Your task to perform on an android device: turn on improve location accuracy Image 0: 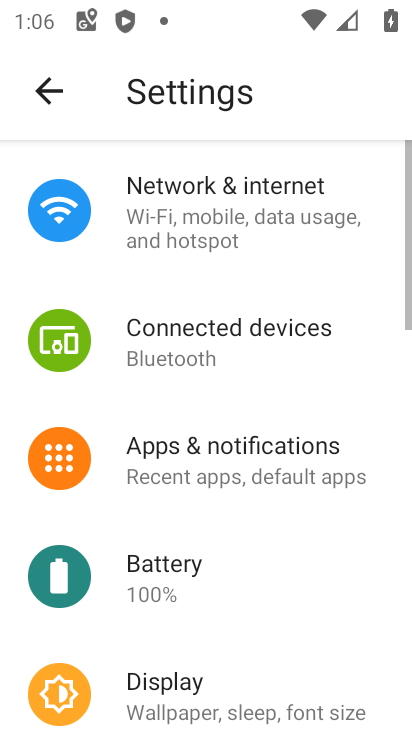
Step 0: press home button
Your task to perform on an android device: turn on improve location accuracy Image 1: 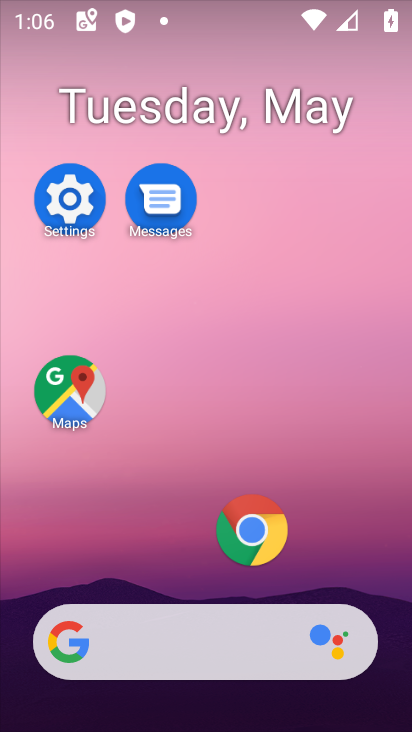
Step 1: drag from (177, 571) to (246, 217)
Your task to perform on an android device: turn on improve location accuracy Image 2: 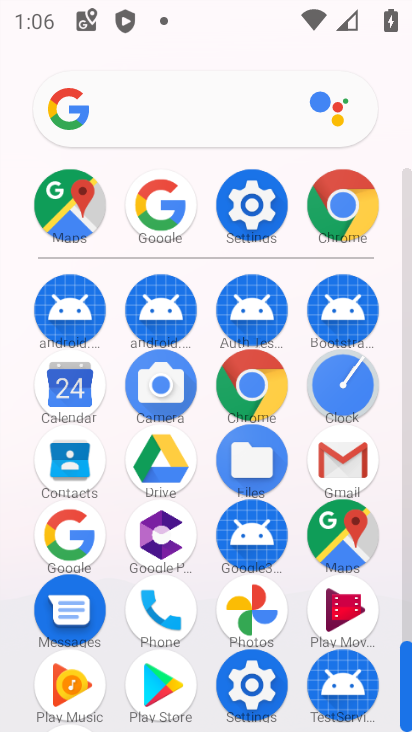
Step 2: click (253, 694)
Your task to perform on an android device: turn on improve location accuracy Image 3: 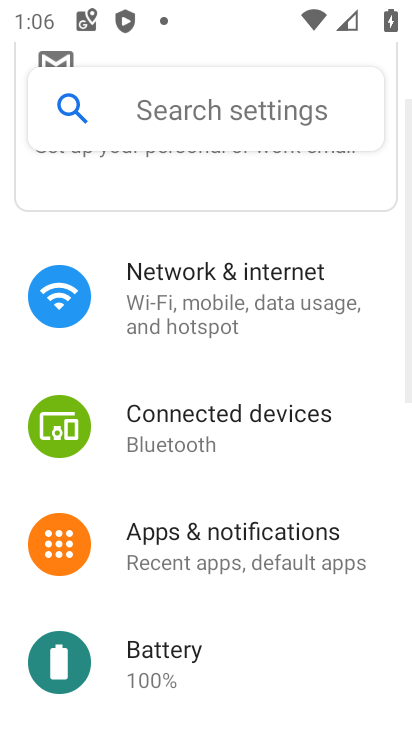
Step 3: drag from (235, 670) to (199, 345)
Your task to perform on an android device: turn on improve location accuracy Image 4: 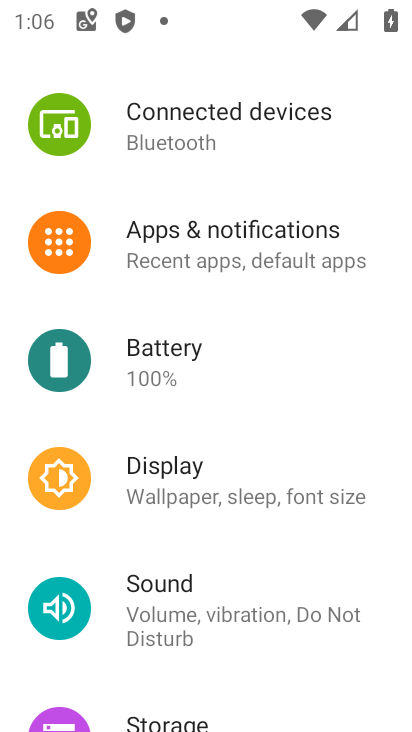
Step 4: drag from (201, 657) to (199, 443)
Your task to perform on an android device: turn on improve location accuracy Image 5: 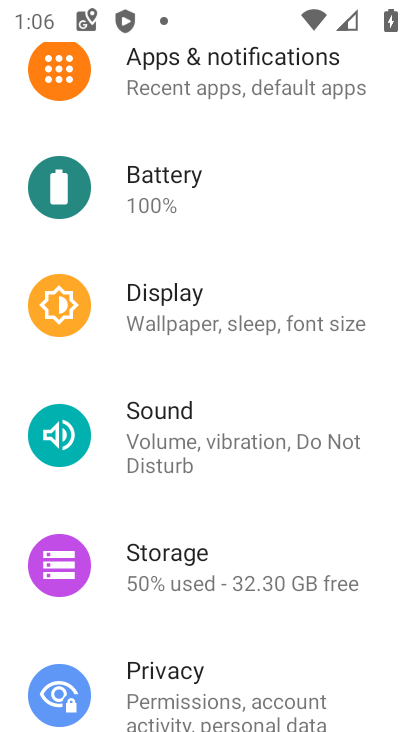
Step 5: drag from (176, 683) to (211, 374)
Your task to perform on an android device: turn on improve location accuracy Image 6: 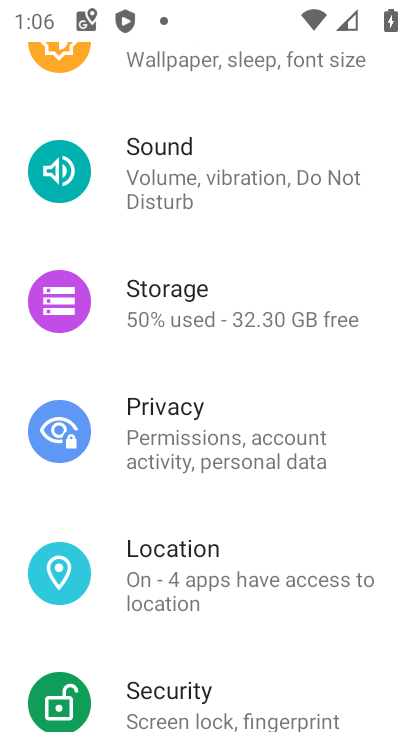
Step 6: click (186, 593)
Your task to perform on an android device: turn on improve location accuracy Image 7: 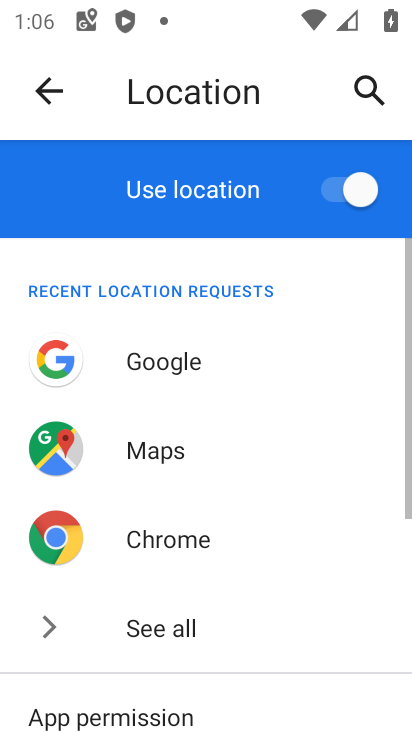
Step 7: drag from (213, 645) to (231, 151)
Your task to perform on an android device: turn on improve location accuracy Image 8: 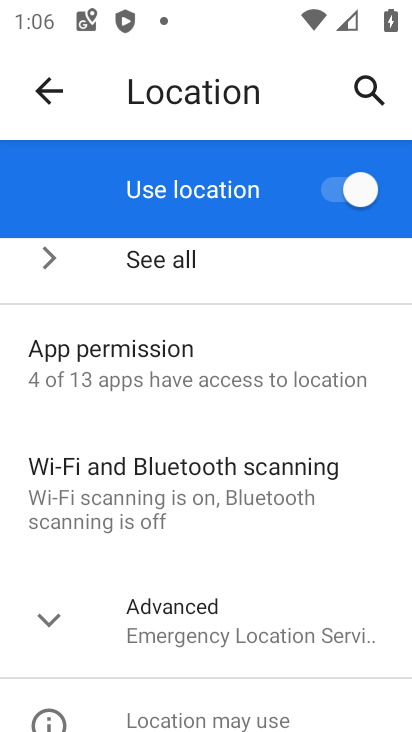
Step 8: click (140, 638)
Your task to perform on an android device: turn on improve location accuracy Image 9: 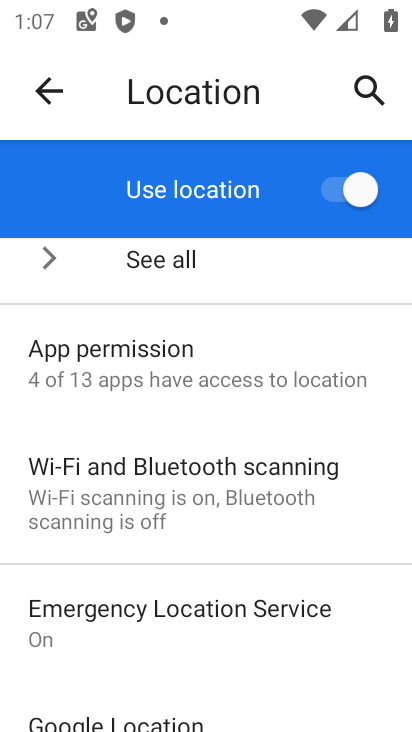
Step 9: drag from (200, 590) to (215, 433)
Your task to perform on an android device: turn on improve location accuracy Image 10: 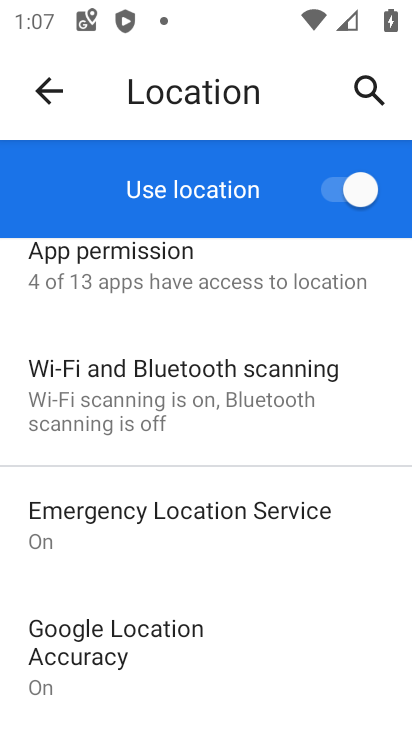
Step 10: click (186, 670)
Your task to perform on an android device: turn on improve location accuracy Image 11: 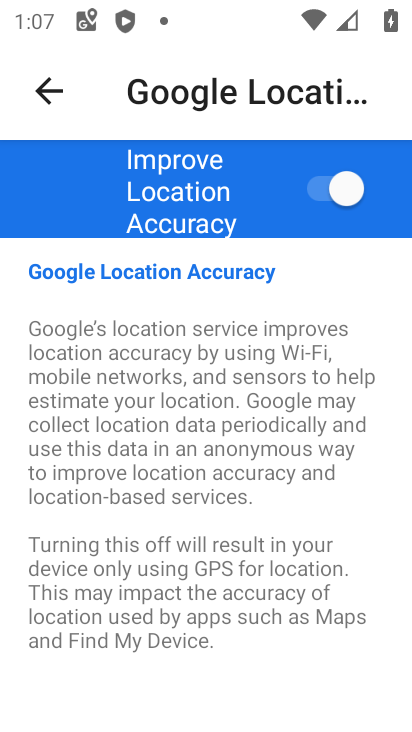
Step 11: task complete